Your task to perform on an android device: Go to privacy settings Image 0: 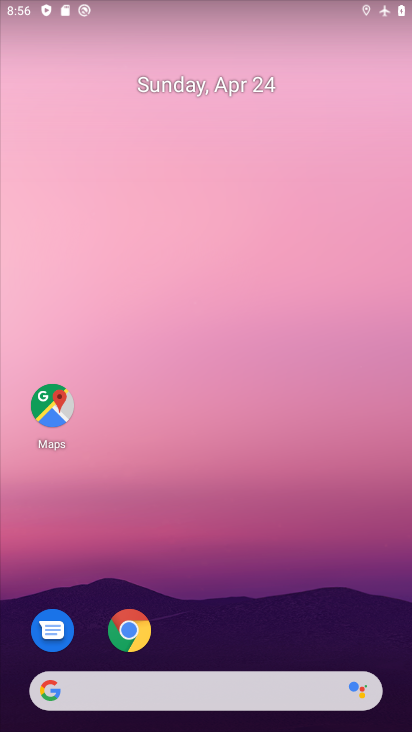
Step 0: drag from (223, 648) to (246, 246)
Your task to perform on an android device: Go to privacy settings Image 1: 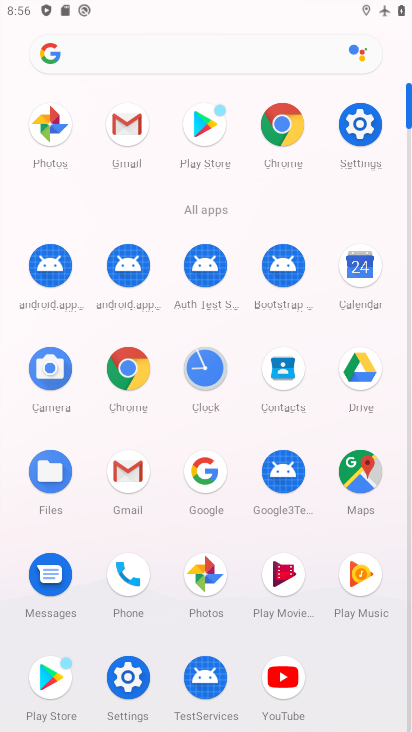
Step 1: click (353, 121)
Your task to perform on an android device: Go to privacy settings Image 2: 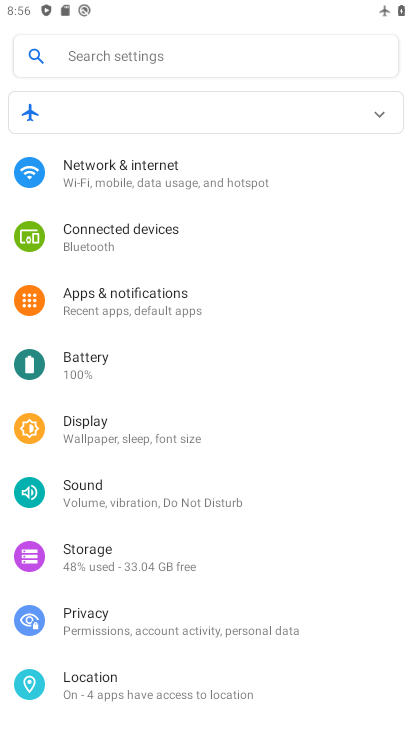
Step 2: click (140, 614)
Your task to perform on an android device: Go to privacy settings Image 3: 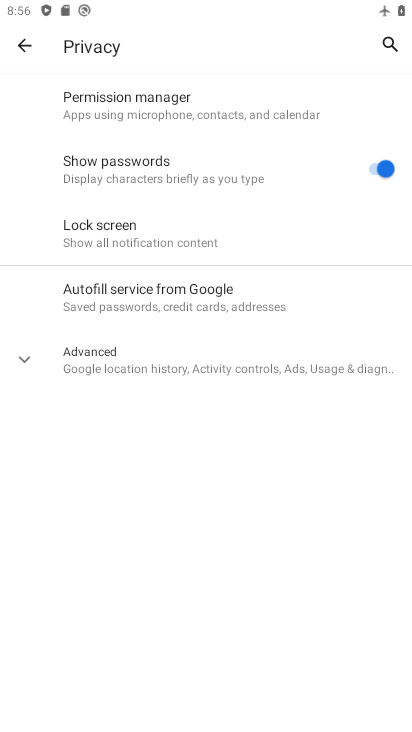
Step 3: task complete